Your task to perform on an android device: Open Chrome and go to the settings page Image 0: 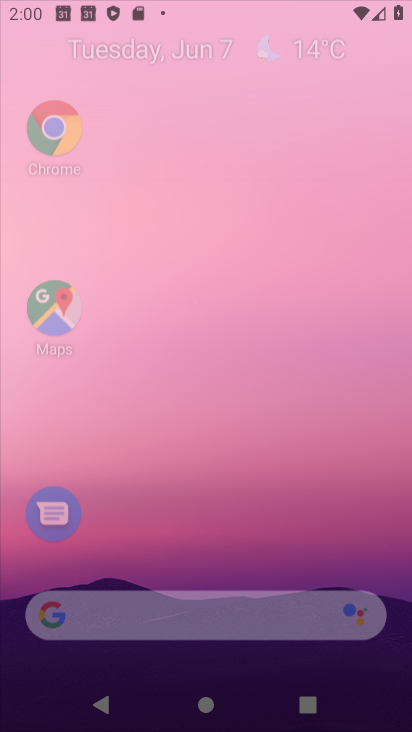
Step 0: click (297, 82)
Your task to perform on an android device: Open Chrome and go to the settings page Image 1: 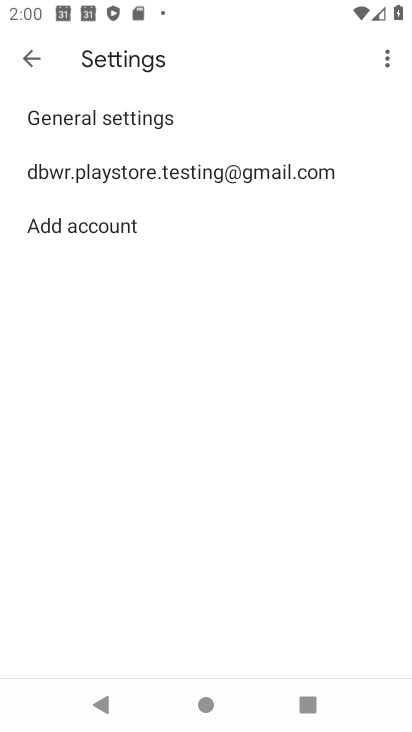
Step 1: press home button
Your task to perform on an android device: Open Chrome and go to the settings page Image 2: 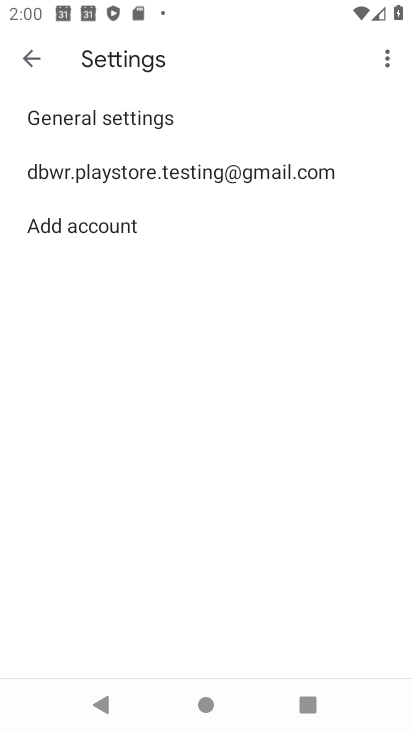
Step 2: drag from (110, 546) to (222, 17)
Your task to perform on an android device: Open Chrome and go to the settings page Image 3: 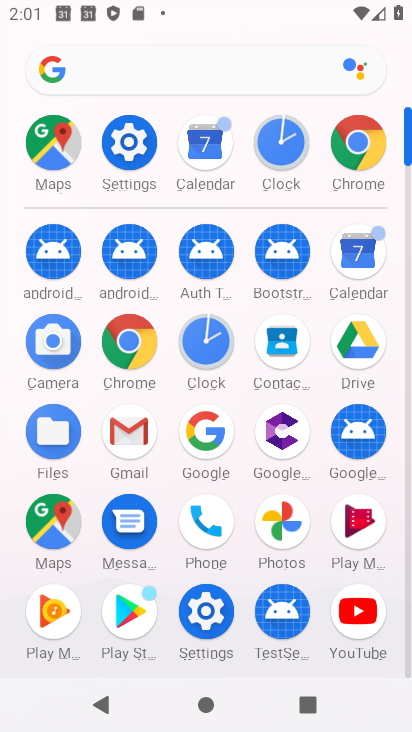
Step 3: click (118, 139)
Your task to perform on an android device: Open Chrome and go to the settings page Image 4: 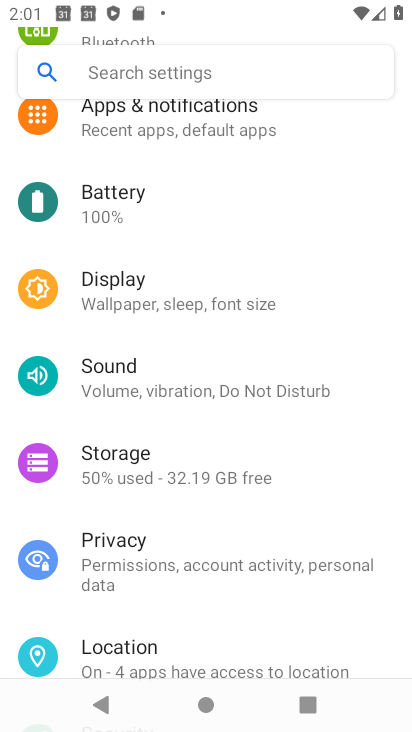
Step 4: press home button
Your task to perform on an android device: Open Chrome and go to the settings page Image 5: 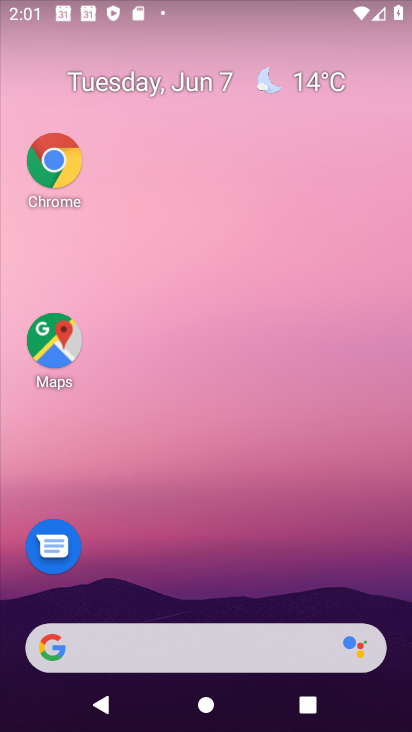
Step 5: drag from (224, 526) to (291, 21)
Your task to perform on an android device: Open Chrome and go to the settings page Image 6: 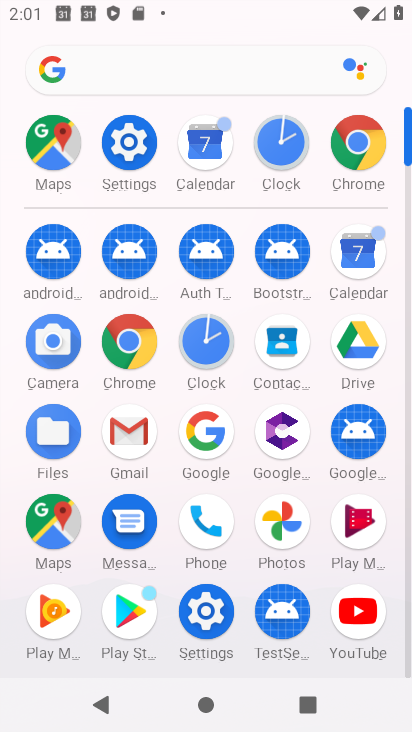
Step 6: click (363, 147)
Your task to perform on an android device: Open Chrome and go to the settings page Image 7: 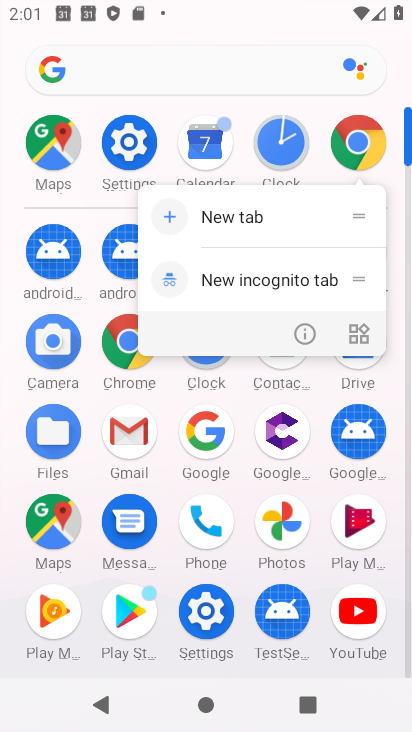
Step 7: click (311, 331)
Your task to perform on an android device: Open Chrome and go to the settings page Image 8: 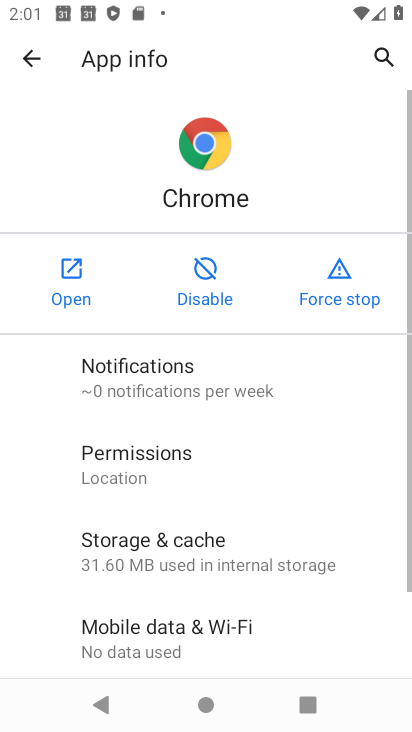
Step 8: click (75, 277)
Your task to perform on an android device: Open Chrome and go to the settings page Image 9: 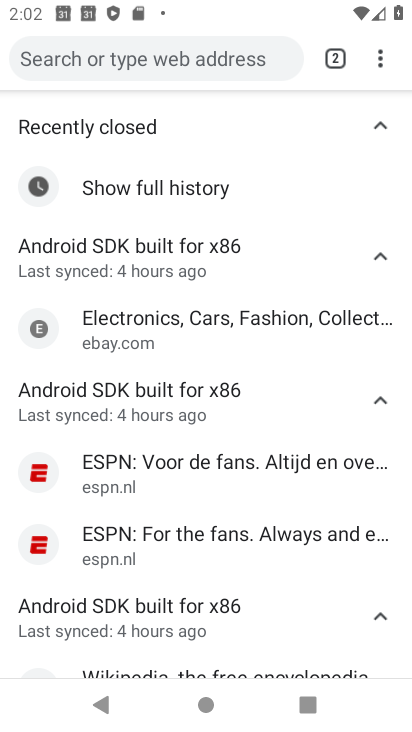
Step 9: task complete